Your task to perform on an android device: open the mobile data screen to see how much data has been used Image 0: 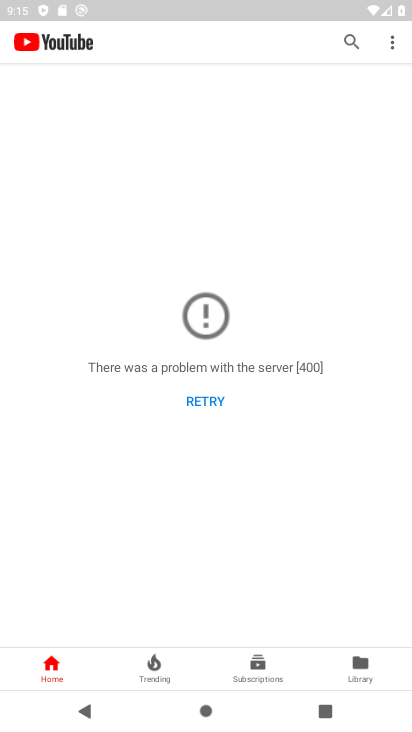
Step 0: press home button
Your task to perform on an android device: open the mobile data screen to see how much data has been used Image 1: 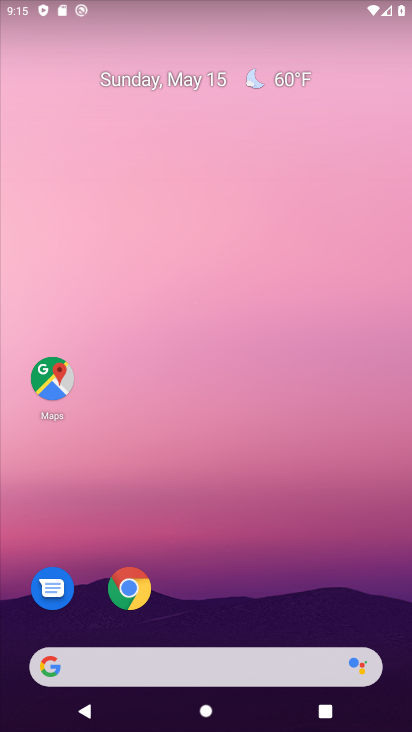
Step 1: drag from (254, 613) to (316, 230)
Your task to perform on an android device: open the mobile data screen to see how much data has been used Image 2: 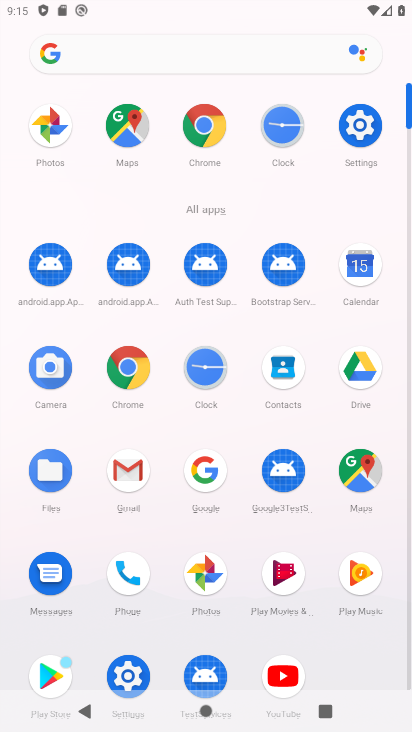
Step 2: click (366, 131)
Your task to perform on an android device: open the mobile data screen to see how much data has been used Image 3: 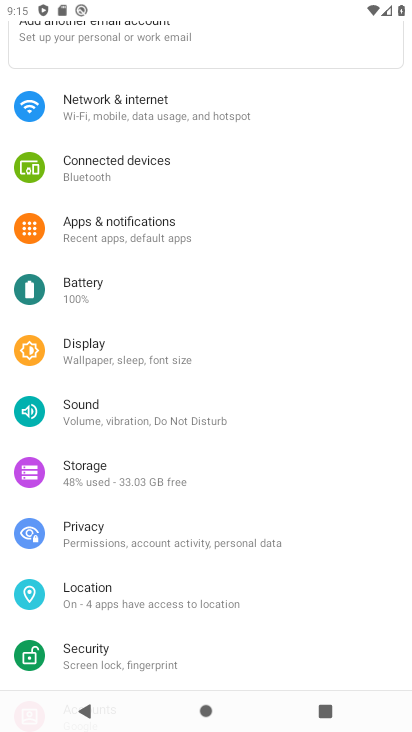
Step 3: click (150, 103)
Your task to perform on an android device: open the mobile data screen to see how much data has been used Image 4: 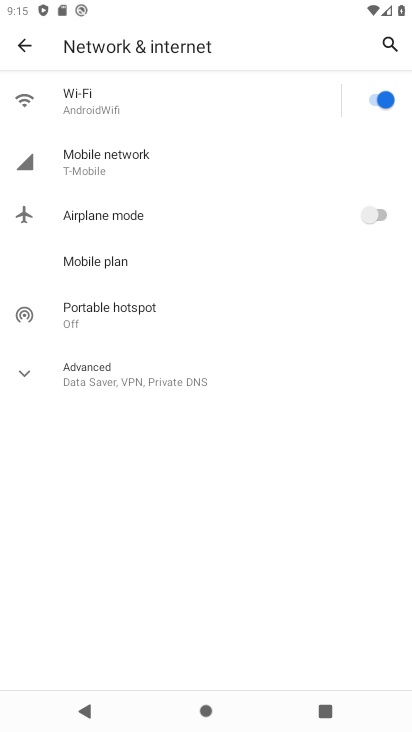
Step 4: click (119, 176)
Your task to perform on an android device: open the mobile data screen to see how much data has been used Image 5: 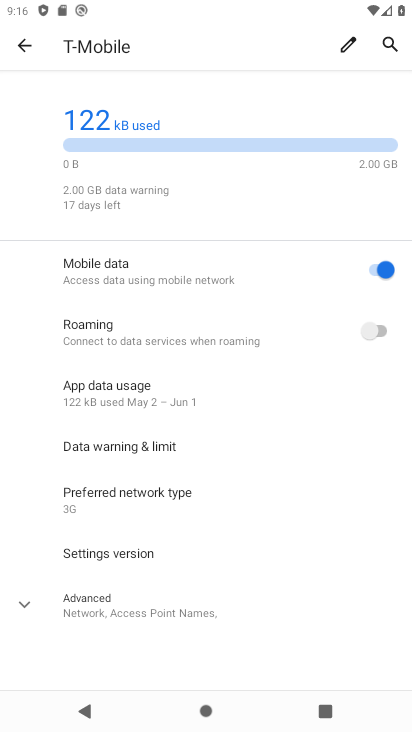
Step 5: click (124, 416)
Your task to perform on an android device: open the mobile data screen to see how much data has been used Image 6: 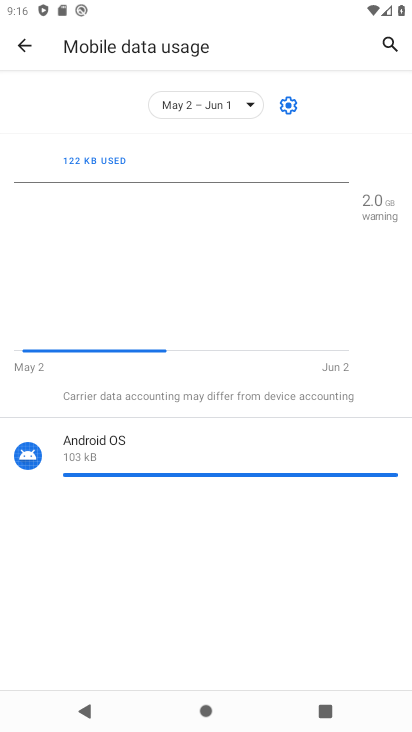
Step 6: task complete